Your task to perform on an android device: Search for Mexican restaurants on Maps Image 0: 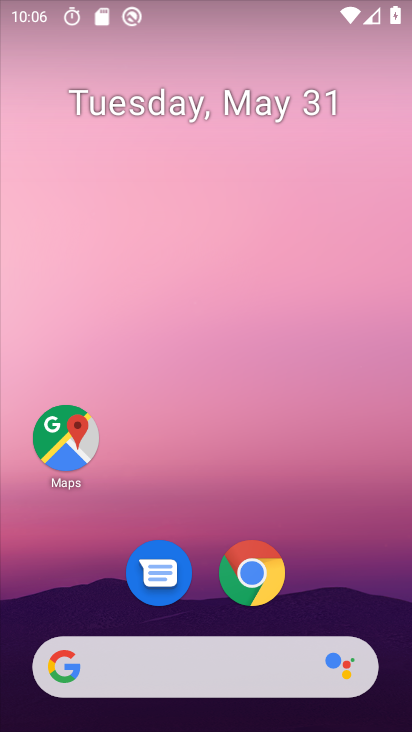
Step 0: click (71, 455)
Your task to perform on an android device: Search for Mexican restaurants on Maps Image 1: 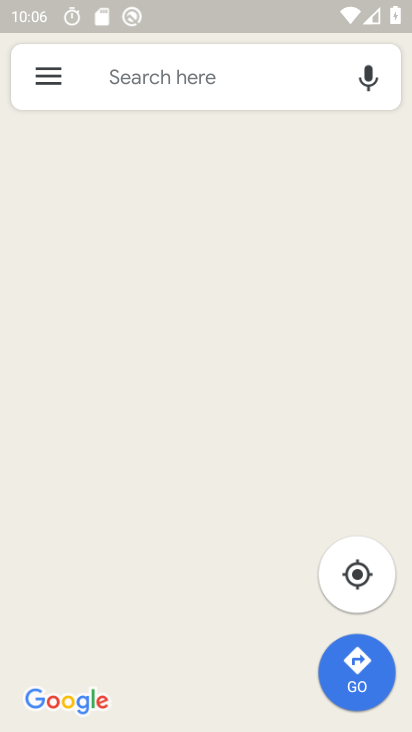
Step 1: click (193, 80)
Your task to perform on an android device: Search for Mexican restaurants on Maps Image 2: 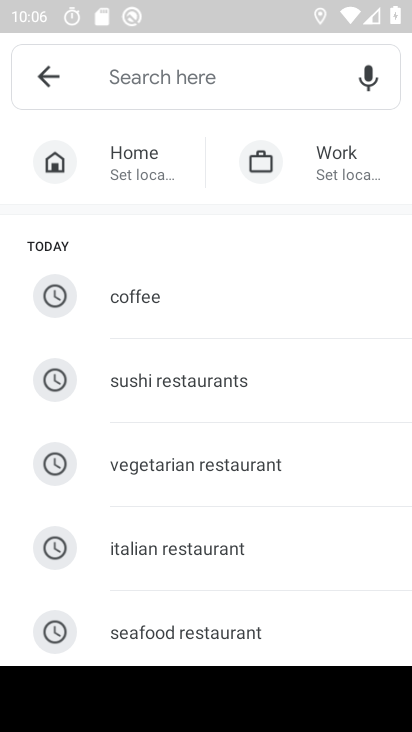
Step 2: type "mexican restaurant"
Your task to perform on an android device: Search for Mexican restaurants on Maps Image 3: 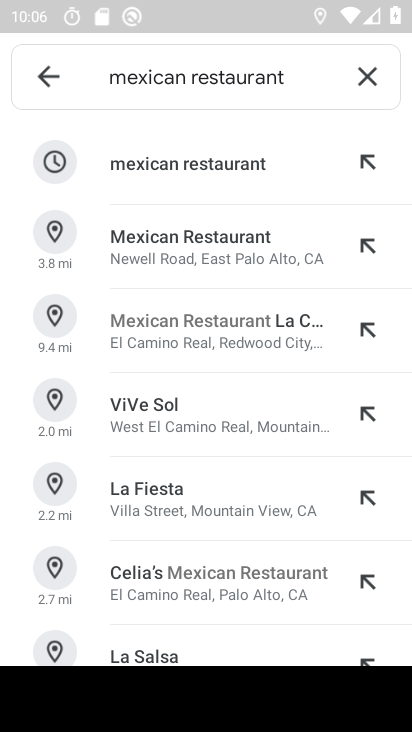
Step 3: click (156, 182)
Your task to perform on an android device: Search for Mexican restaurants on Maps Image 4: 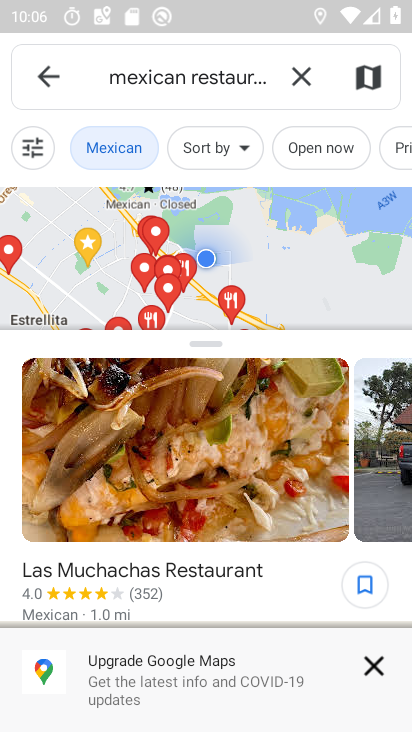
Step 4: task complete